Your task to perform on an android device: open a bookmark in the chrome app Image 0: 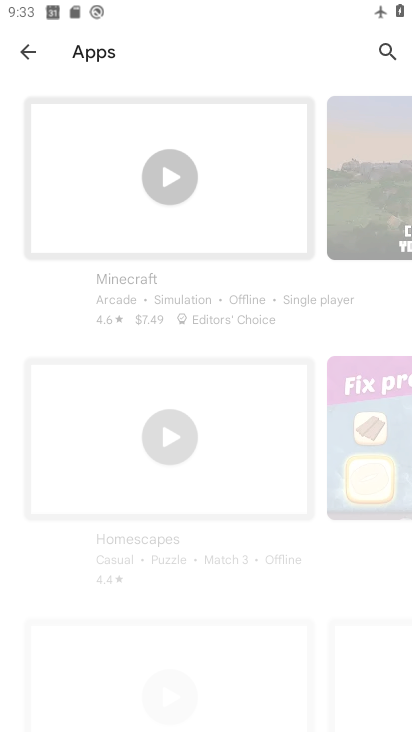
Step 0: drag from (222, 627) to (255, 302)
Your task to perform on an android device: open a bookmark in the chrome app Image 1: 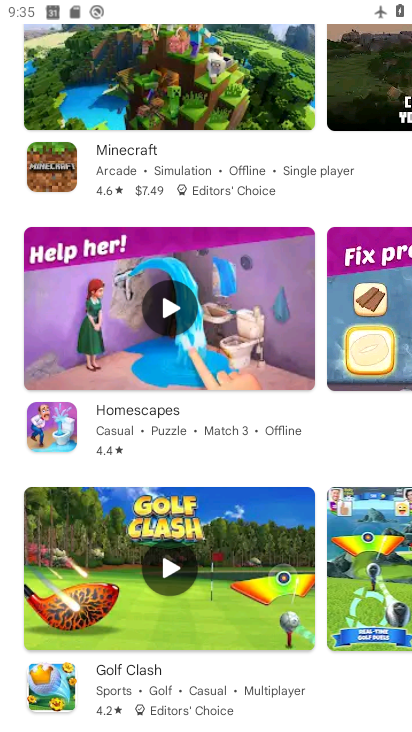
Step 1: drag from (324, 499) to (309, 141)
Your task to perform on an android device: open a bookmark in the chrome app Image 2: 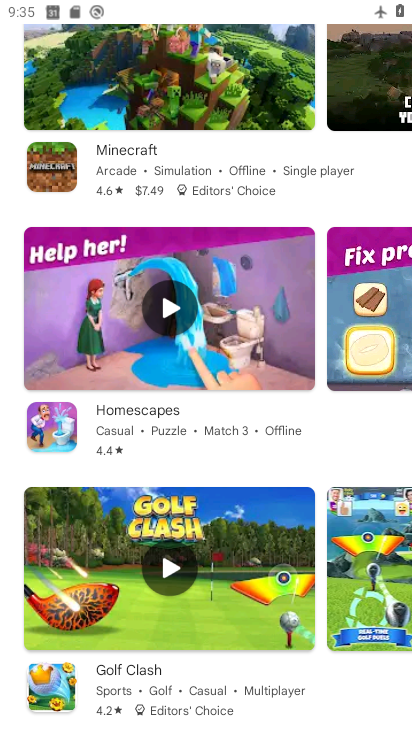
Step 2: press home button
Your task to perform on an android device: open a bookmark in the chrome app Image 3: 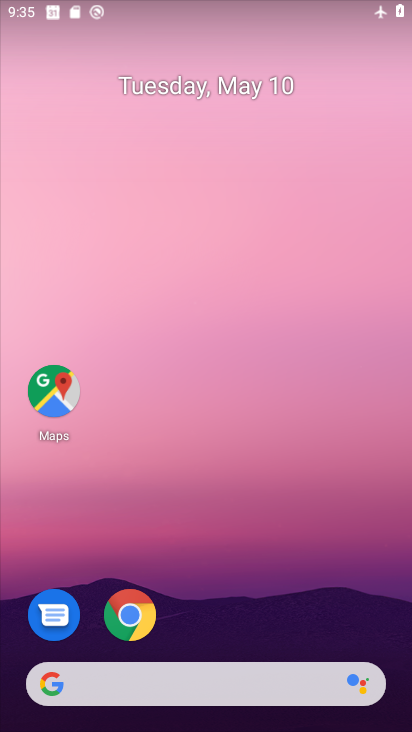
Step 3: click (135, 609)
Your task to perform on an android device: open a bookmark in the chrome app Image 4: 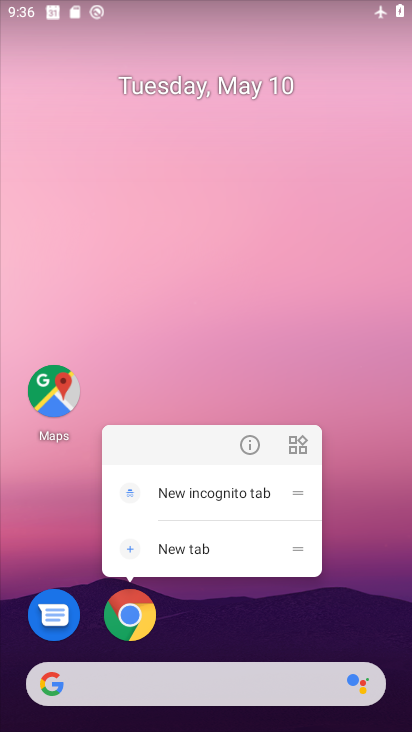
Step 4: click (247, 436)
Your task to perform on an android device: open a bookmark in the chrome app Image 5: 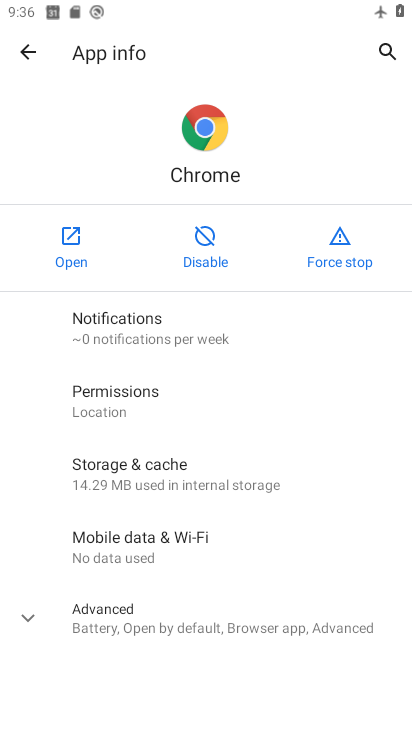
Step 5: click (73, 231)
Your task to perform on an android device: open a bookmark in the chrome app Image 6: 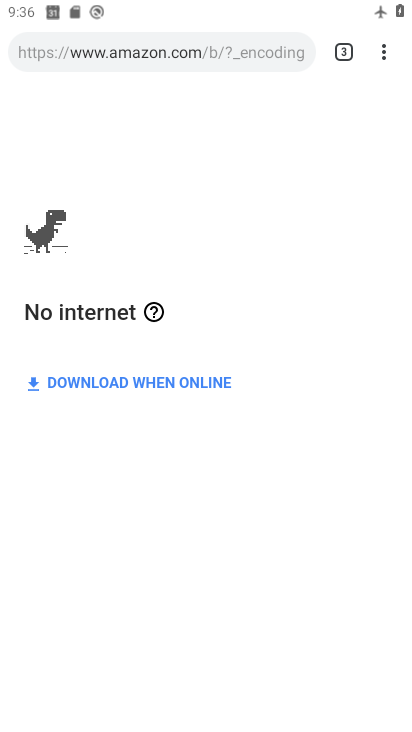
Step 6: click (389, 62)
Your task to perform on an android device: open a bookmark in the chrome app Image 7: 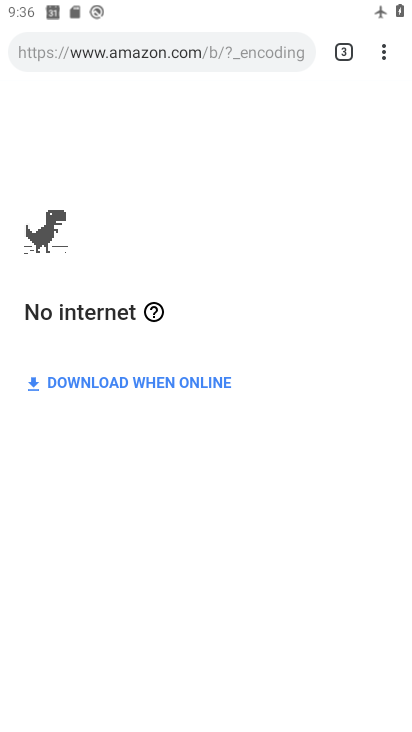
Step 7: click (388, 53)
Your task to perform on an android device: open a bookmark in the chrome app Image 8: 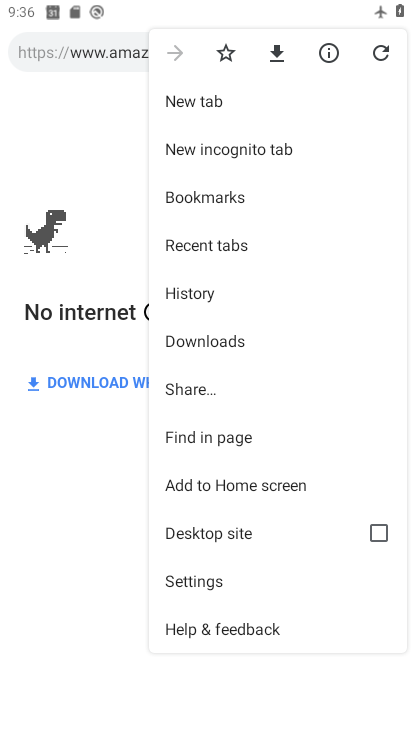
Step 8: click (200, 198)
Your task to perform on an android device: open a bookmark in the chrome app Image 9: 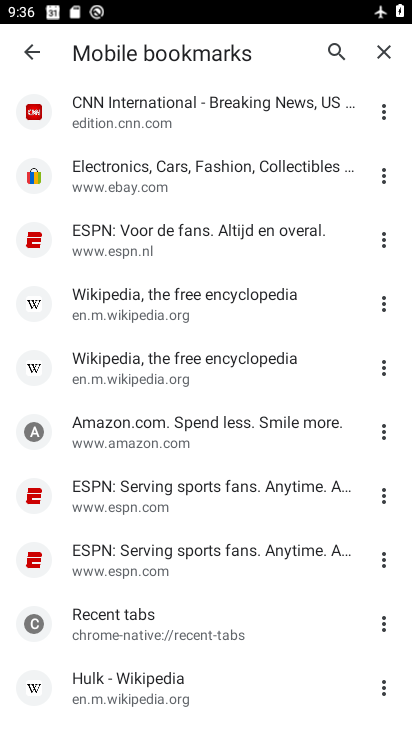
Step 9: task complete